Your task to perform on an android device: turn off wifi Image 0: 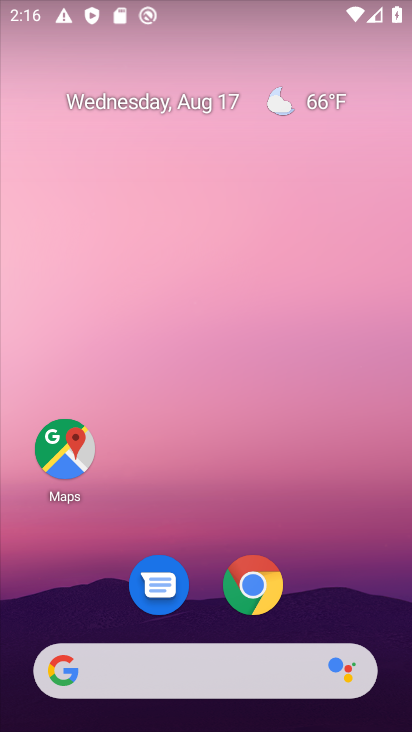
Step 0: drag from (210, 500) to (204, 0)
Your task to perform on an android device: turn off wifi Image 1: 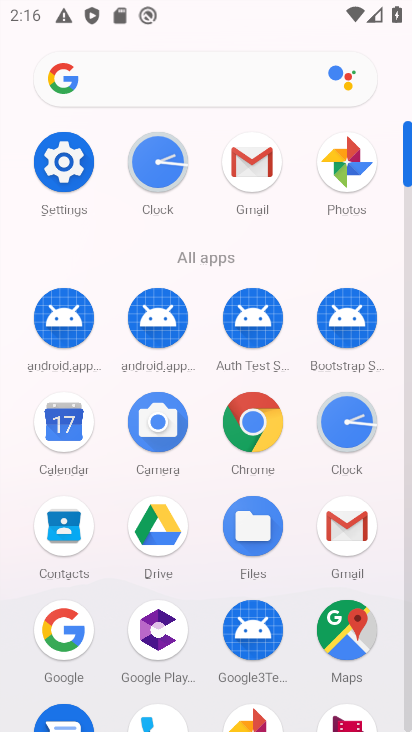
Step 1: click (69, 161)
Your task to perform on an android device: turn off wifi Image 2: 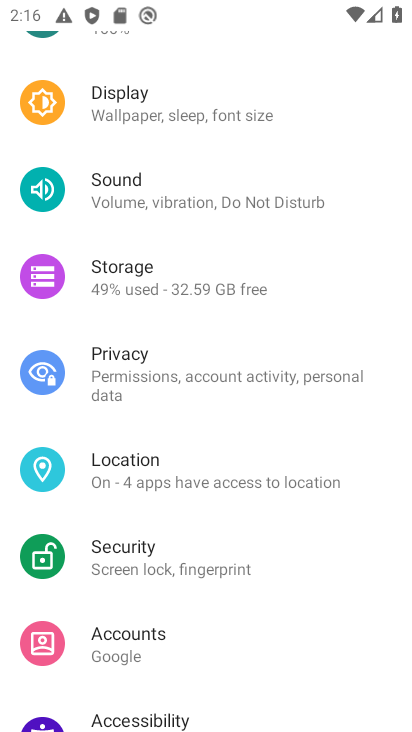
Step 2: drag from (227, 180) to (215, 393)
Your task to perform on an android device: turn off wifi Image 3: 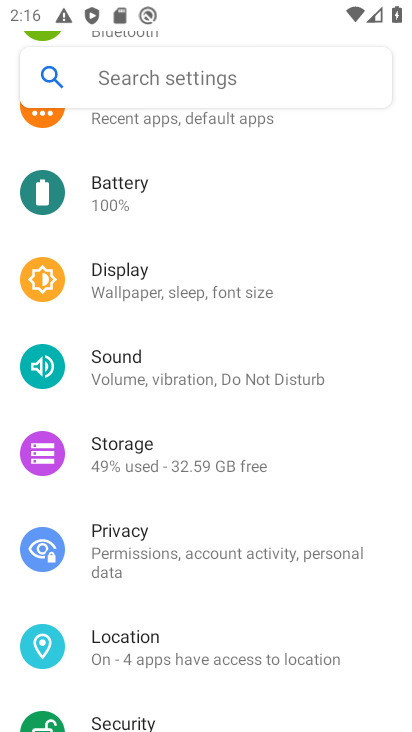
Step 3: drag from (211, 263) to (233, 581)
Your task to perform on an android device: turn off wifi Image 4: 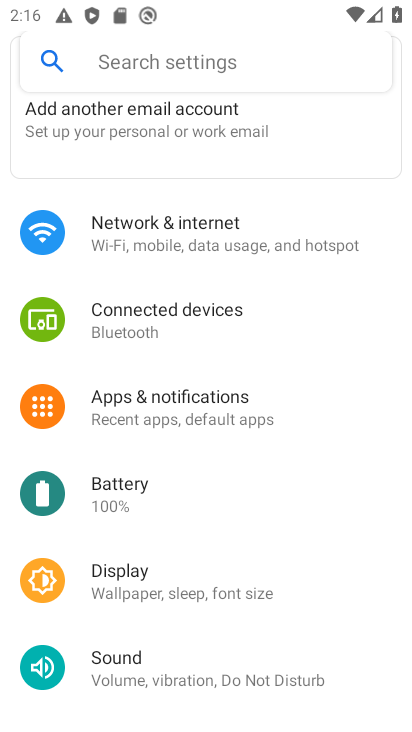
Step 4: click (250, 231)
Your task to perform on an android device: turn off wifi Image 5: 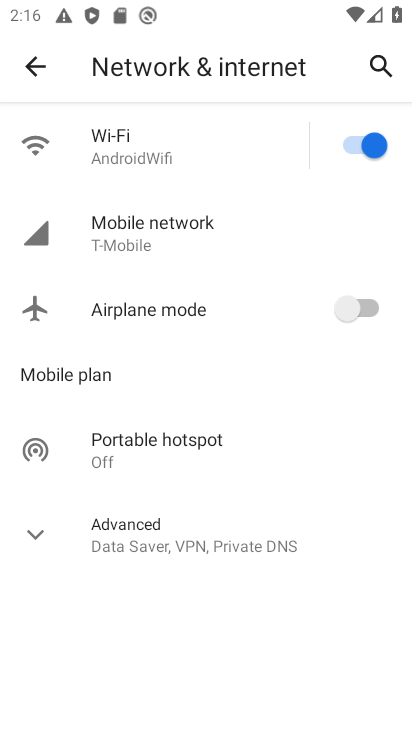
Step 5: click (359, 140)
Your task to perform on an android device: turn off wifi Image 6: 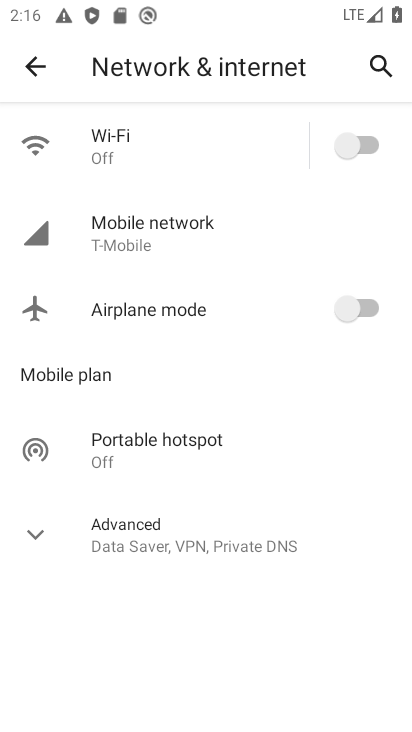
Step 6: task complete